Your task to perform on an android device: Open sound settings Image 0: 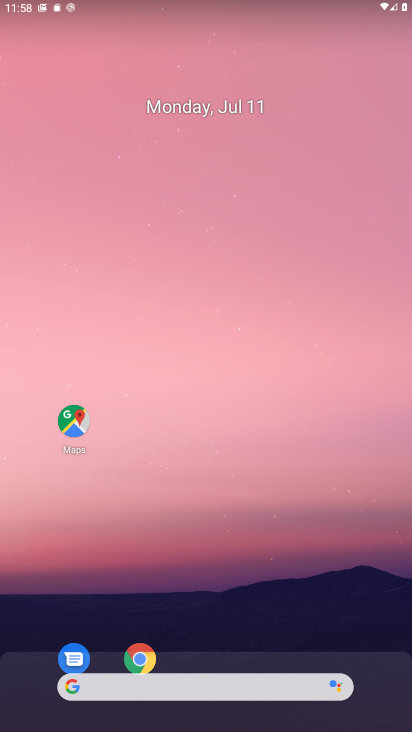
Step 0: drag from (317, 594) to (274, 10)
Your task to perform on an android device: Open sound settings Image 1: 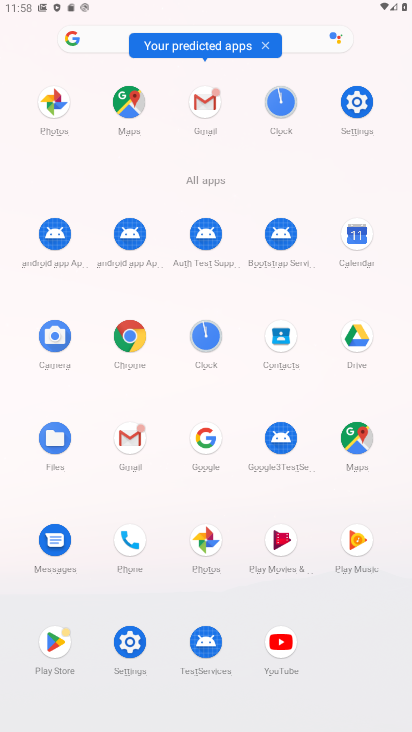
Step 1: click (359, 102)
Your task to perform on an android device: Open sound settings Image 2: 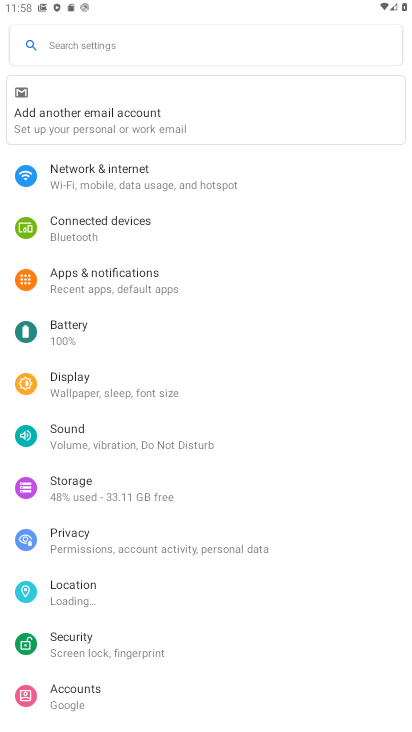
Step 2: click (98, 433)
Your task to perform on an android device: Open sound settings Image 3: 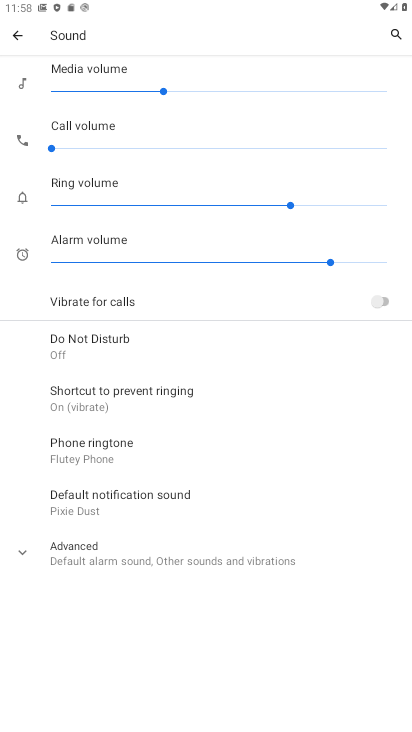
Step 3: task complete